Your task to perform on an android device: Show me popular videos on Youtube Image 0: 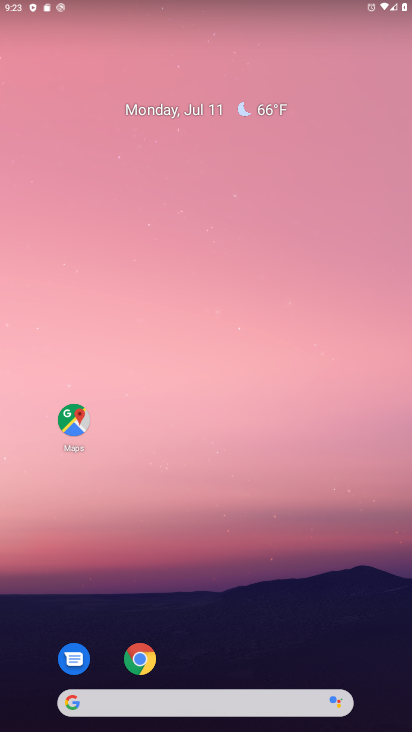
Step 0: drag from (348, 628) to (332, 94)
Your task to perform on an android device: Show me popular videos on Youtube Image 1: 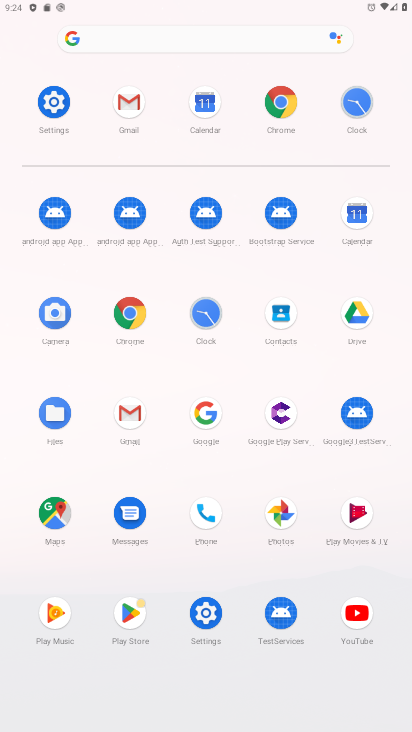
Step 1: click (353, 613)
Your task to perform on an android device: Show me popular videos on Youtube Image 2: 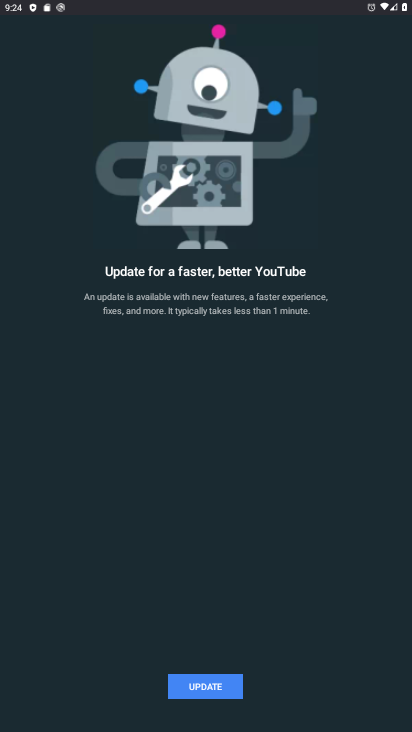
Step 2: click (218, 684)
Your task to perform on an android device: Show me popular videos on Youtube Image 3: 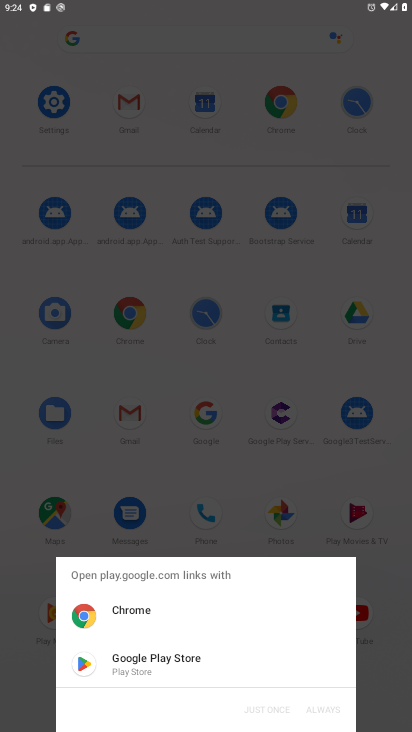
Step 3: click (182, 648)
Your task to perform on an android device: Show me popular videos on Youtube Image 4: 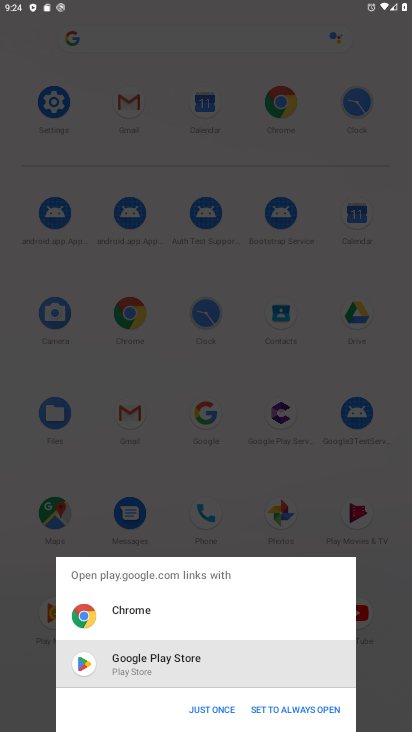
Step 4: click (200, 712)
Your task to perform on an android device: Show me popular videos on Youtube Image 5: 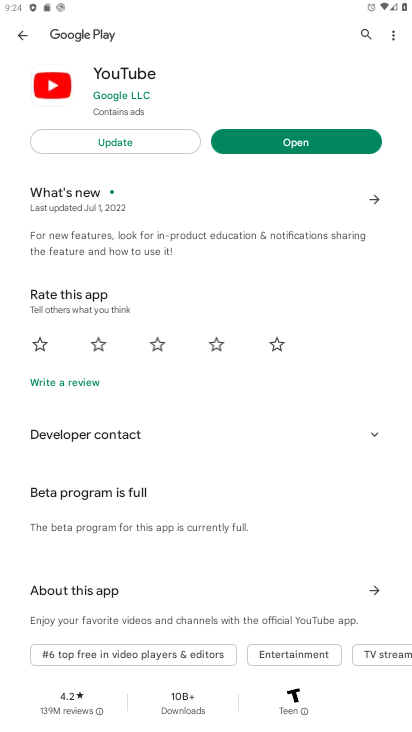
Step 5: click (133, 143)
Your task to perform on an android device: Show me popular videos on Youtube Image 6: 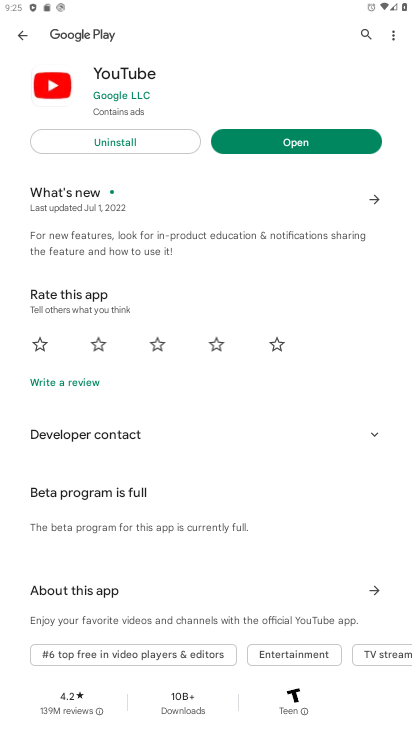
Step 6: click (328, 142)
Your task to perform on an android device: Show me popular videos on Youtube Image 7: 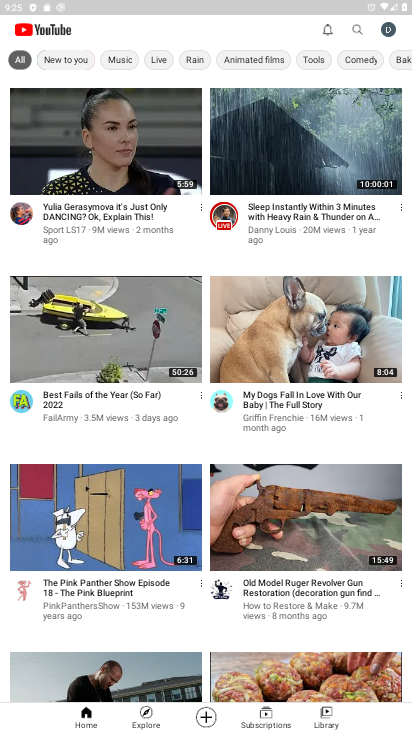
Step 7: task complete